Your task to perform on an android device: Open Youtube and go to the subscriptions tab Image 0: 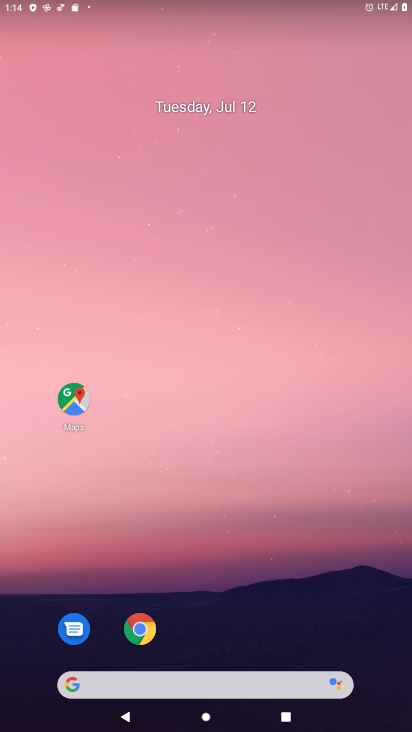
Step 0: drag from (176, 674) to (214, 7)
Your task to perform on an android device: Open Youtube and go to the subscriptions tab Image 1: 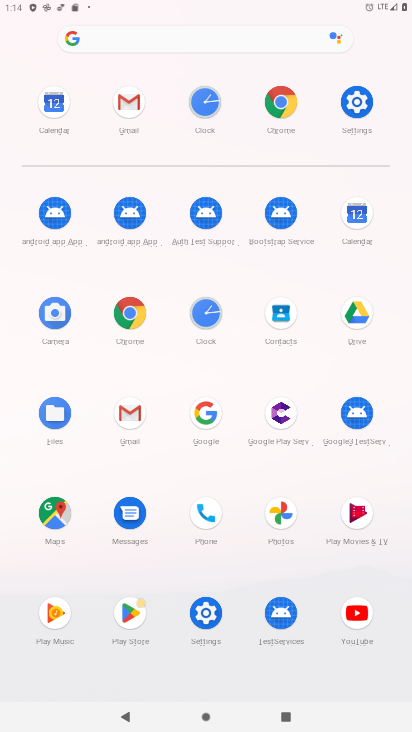
Step 1: click (362, 613)
Your task to perform on an android device: Open Youtube and go to the subscriptions tab Image 2: 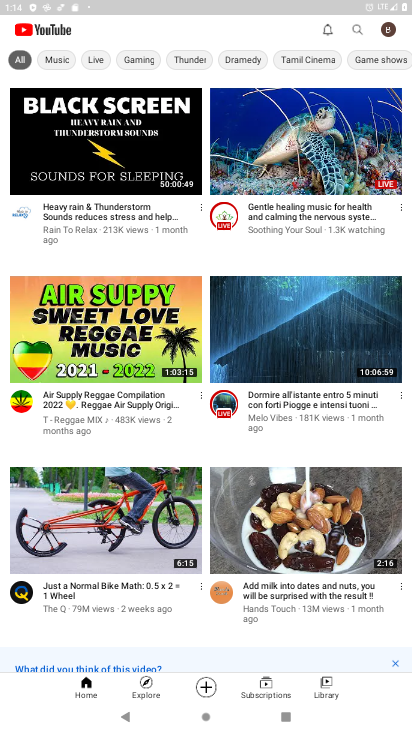
Step 2: click (268, 685)
Your task to perform on an android device: Open Youtube and go to the subscriptions tab Image 3: 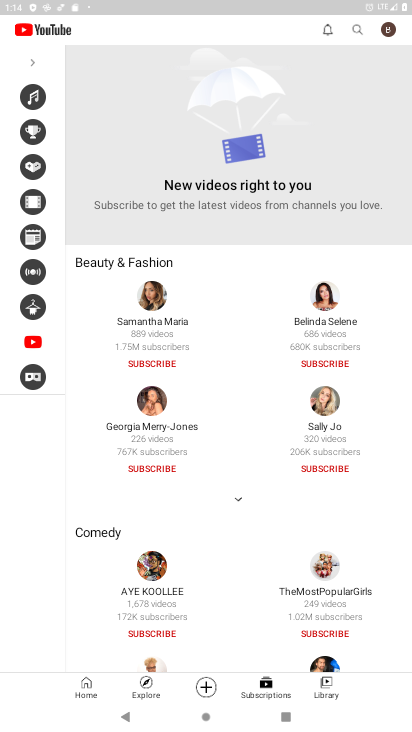
Step 3: task complete